Your task to perform on an android device: open app "Spotify: Music and Podcasts" (install if not already installed), go to login, and select forgot password Image 0: 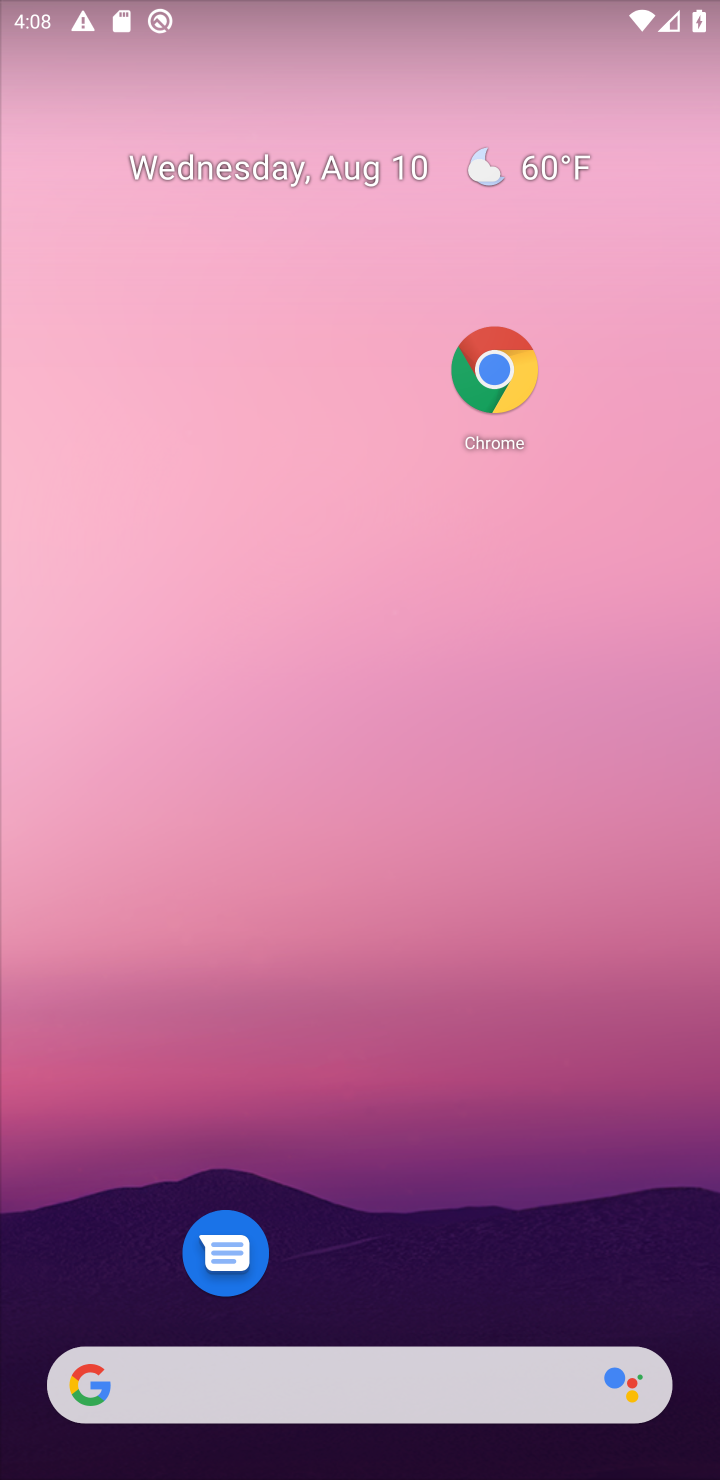
Step 0: click (326, 576)
Your task to perform on an android device: open app "Spotify: Music and Podcasts" (install if not already installed), go to login, and select forgot password Image 1: 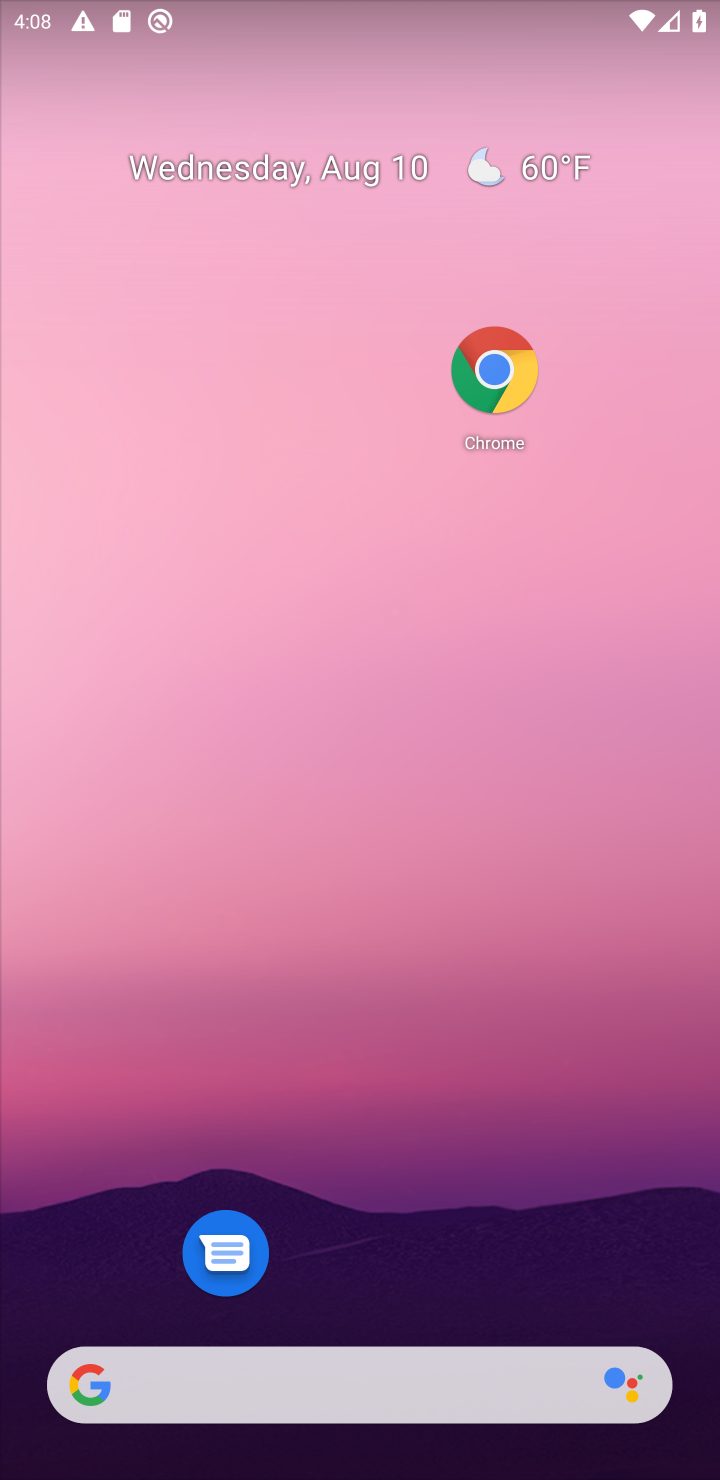
Step 1: drag from (379, 1028) to (431, 436)
Your task to perform on an android device: open app "Spotify: Music and Podcasts" (install if not already installed), go to login, and select forgot password Image 2: 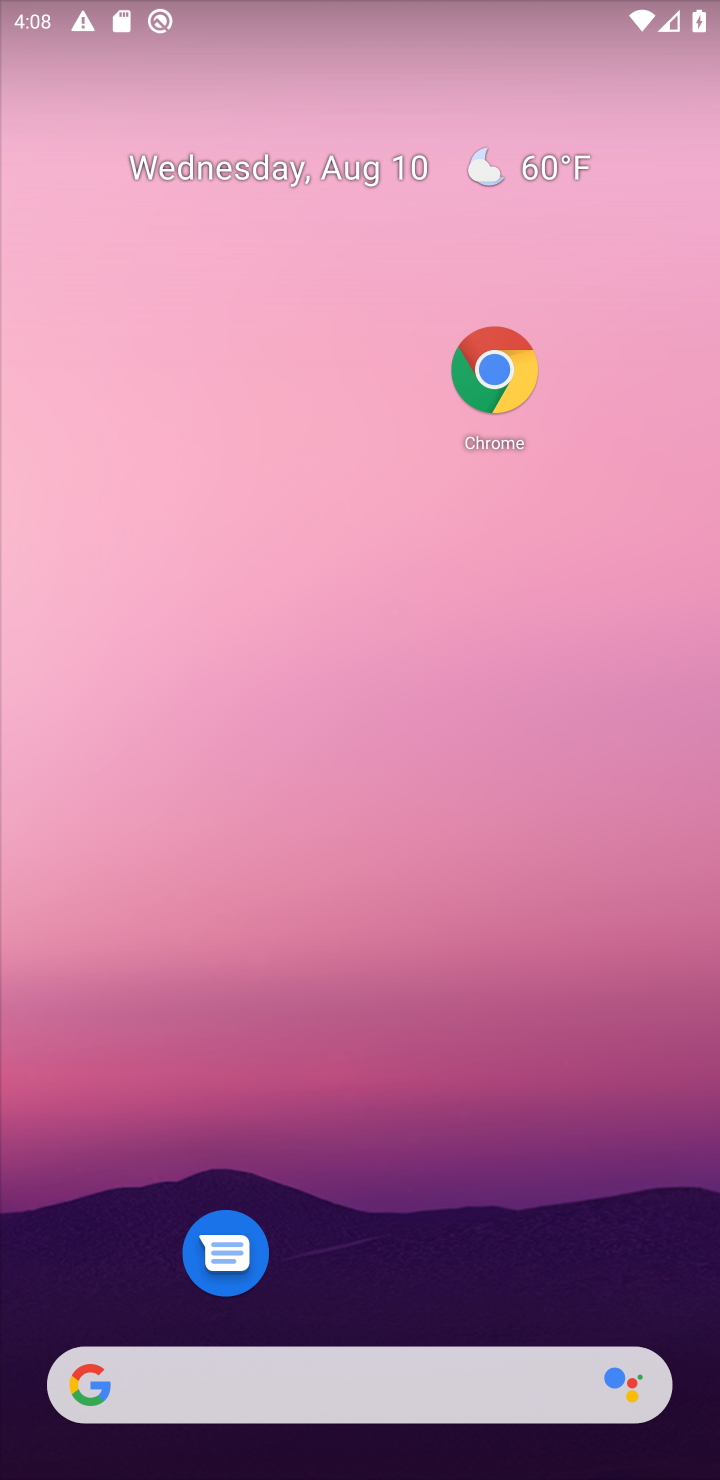
Step 2: drag from (283, 1265) to (266, 1067)
Your task to perform on an android device: open app "Spotify: Music and Podcasts" (install if not already installed), go to login, and select forgot password Image 3: 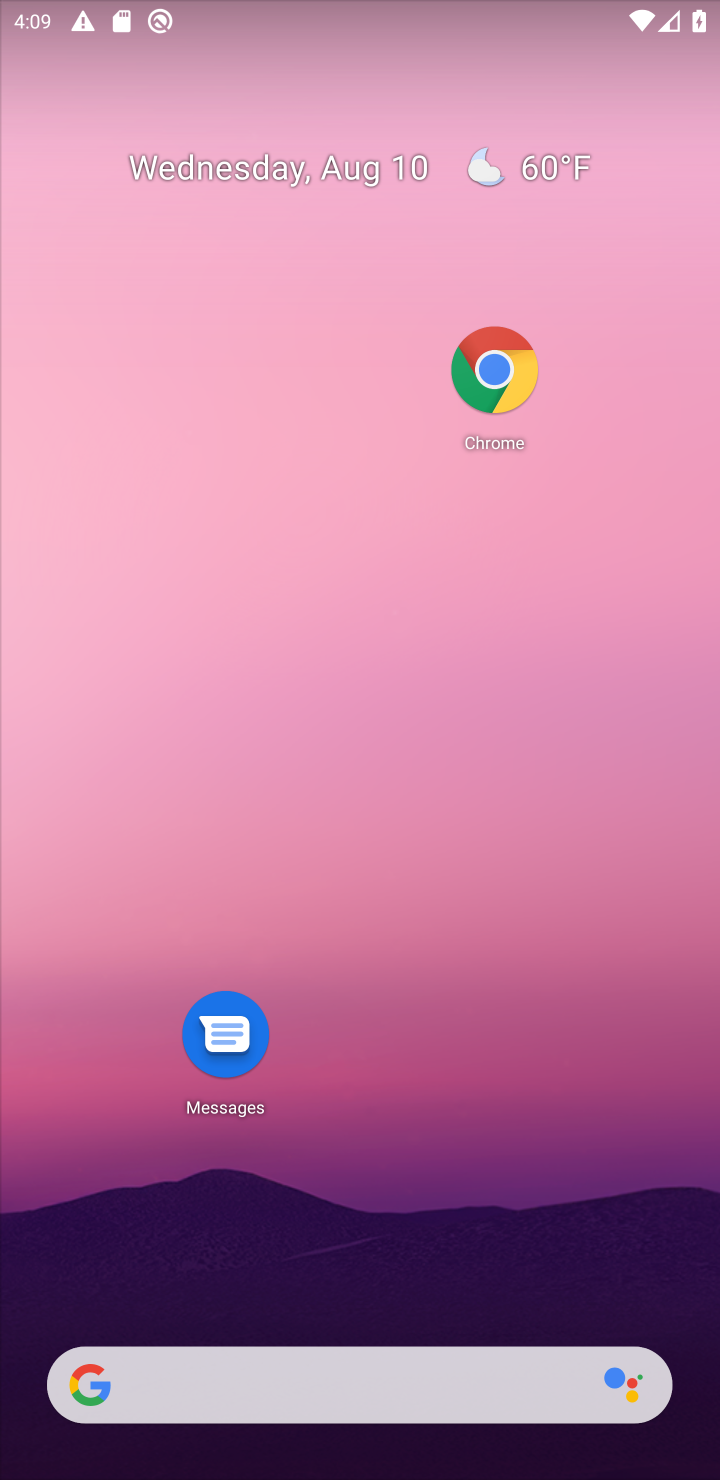
Step 3: drag from (383, 1136) to (377, 376)
Your task to perform on an android device: open app "Spotify: Music and Podcasts" (install if not already installed), go to login, and select forgot password Image 4: 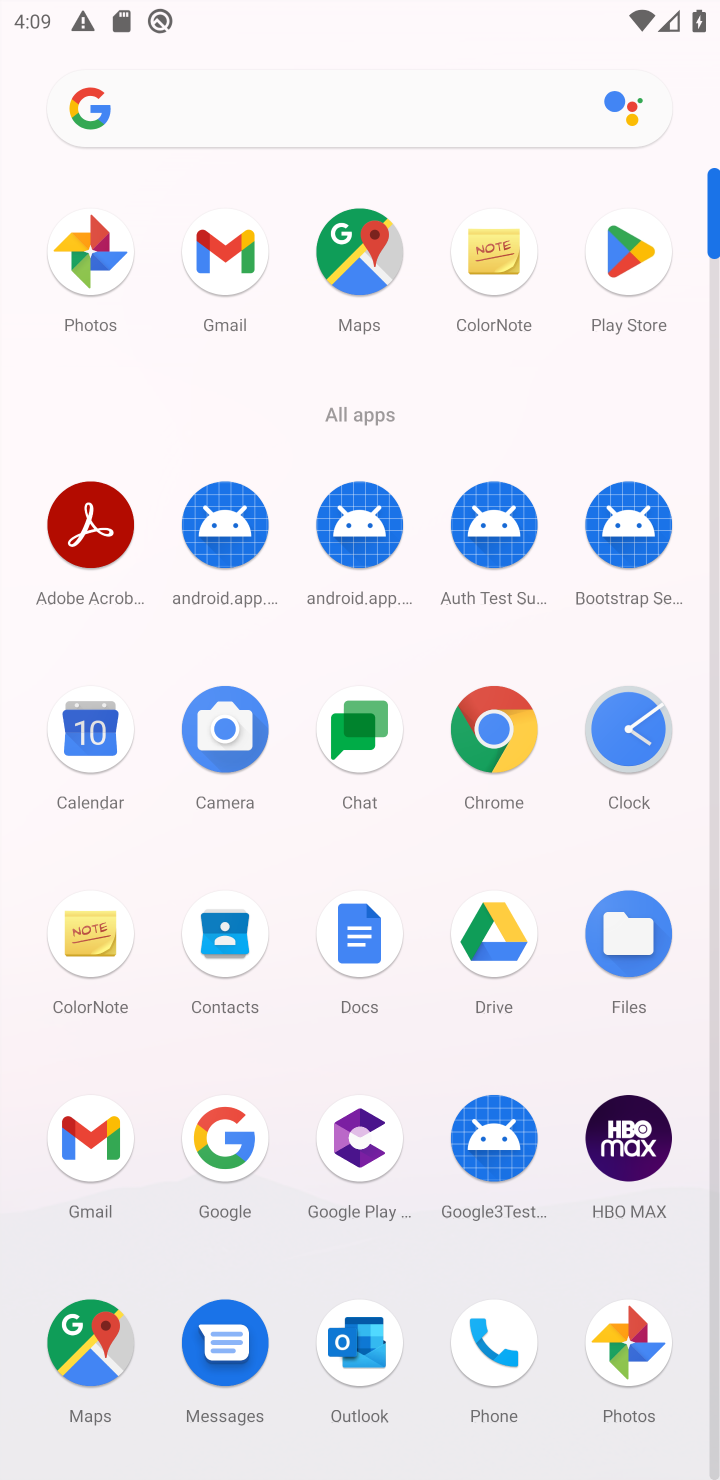
Step 4: click (618, 241)
Your task to perform on an android device: open app "Spotify: Music and Podcasts" (install if not already installed), go to login, and select forgot password Image 5: 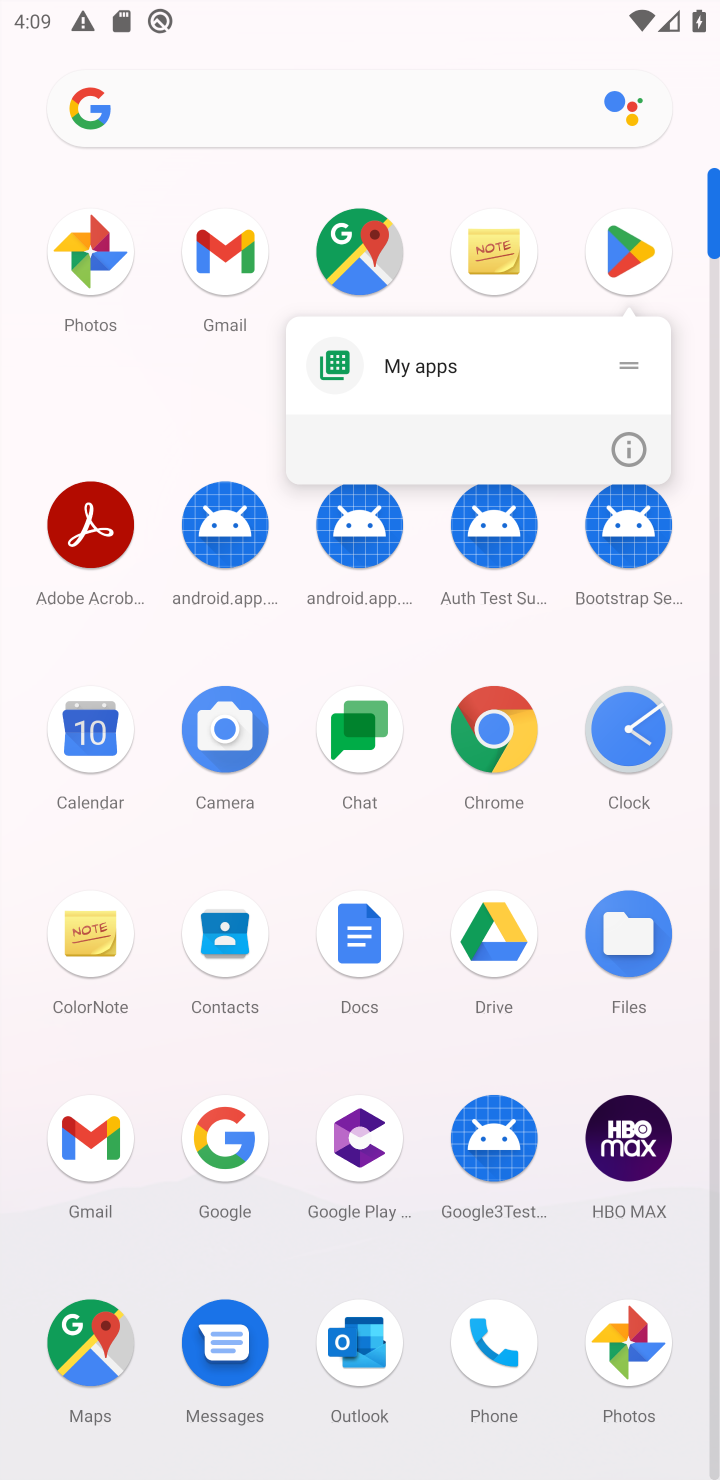
Step 5: click (635, 235)
Your task to perform on an android device: open app "Spotify: Music and Podcasts" (install if not already installed), go to login, and select forgot password Image 6: 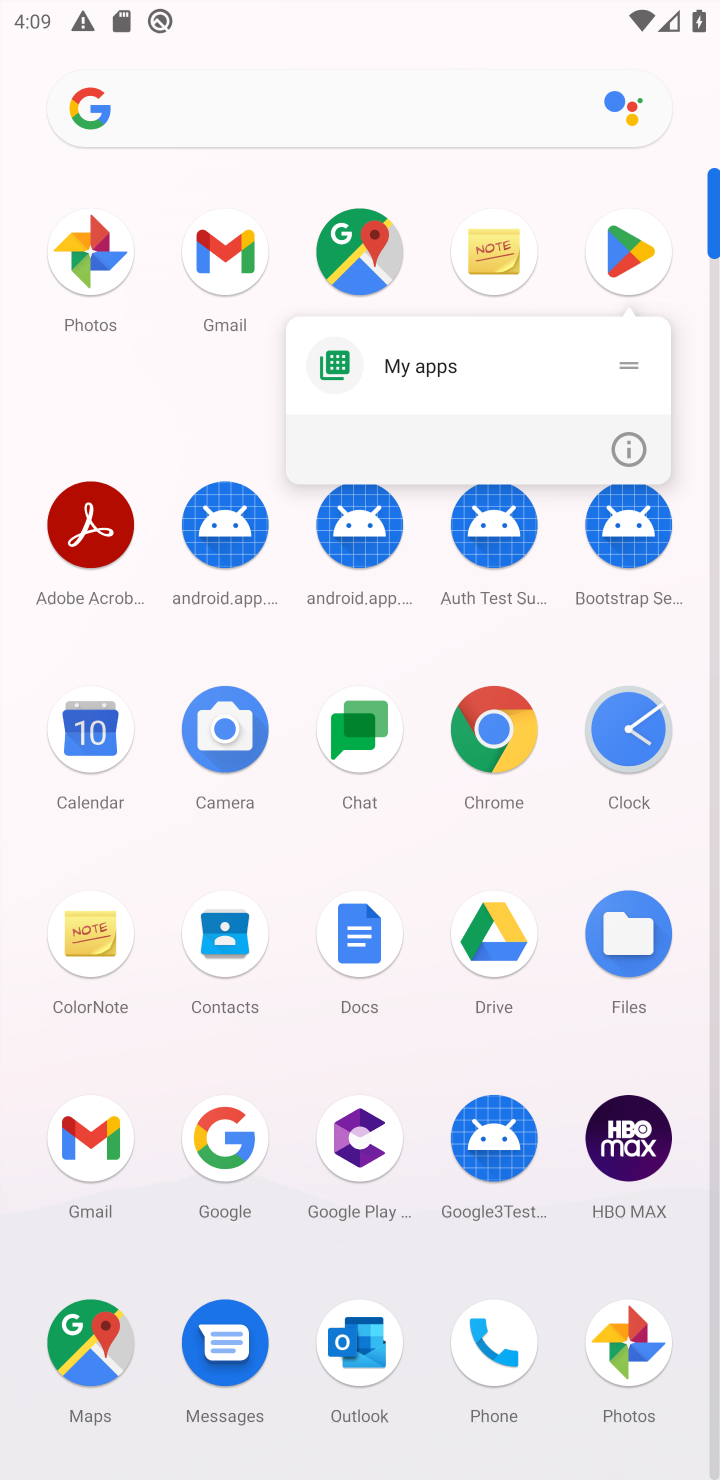
Step 6: click (631, 270)
Your task to perform on an android device: open app "Spotify: Music and Podcasts" (install if not already installed), go to login, and select forgot password Image 7: 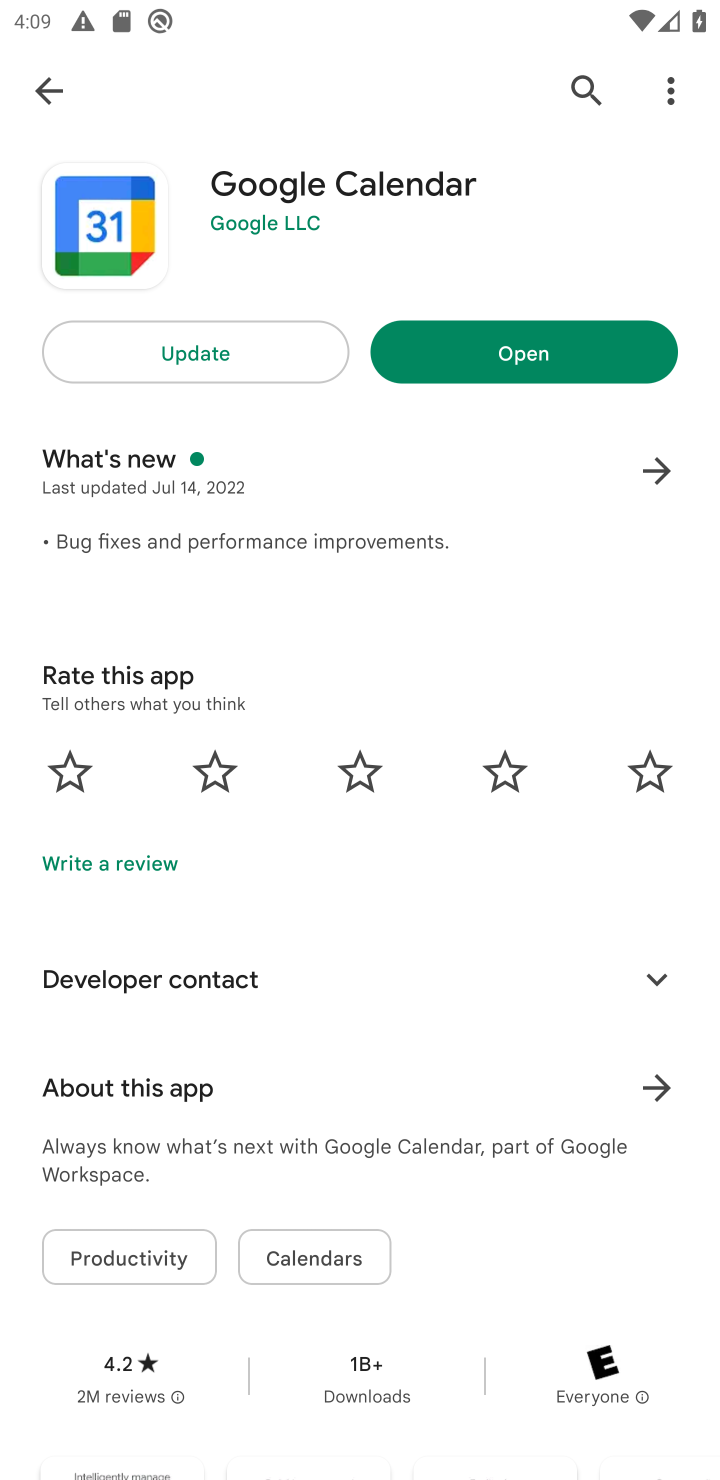
Step 7: click (38, 88)
Your task to perform on an android device: open app "Spotify: Music and Podcasts" (install if not already installed), go to login, and select forgot password Image 8: 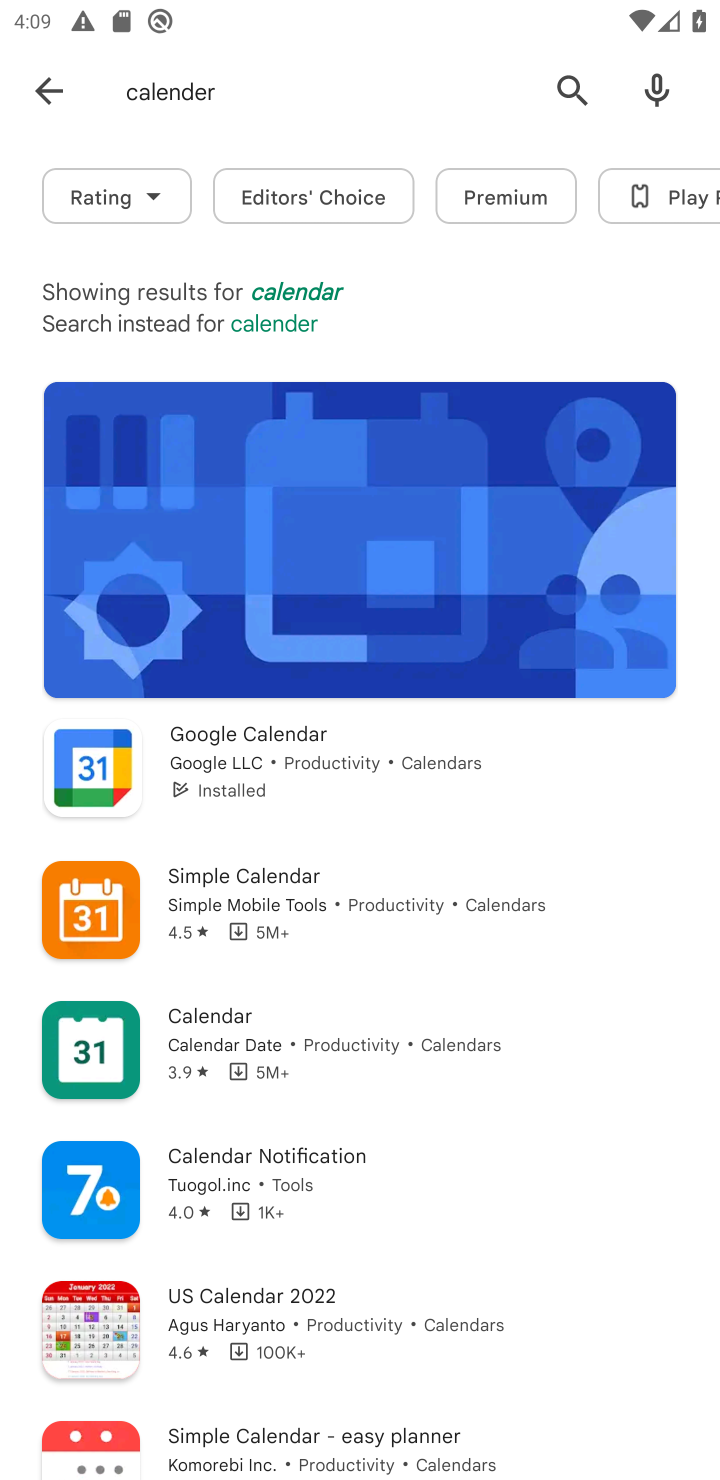
Step 8: click (37, 68)
Your task to perform on an android device: open app "Spotify: Music and Podcasts" (install if not already installed), go to login, and select forgot password Image 9: 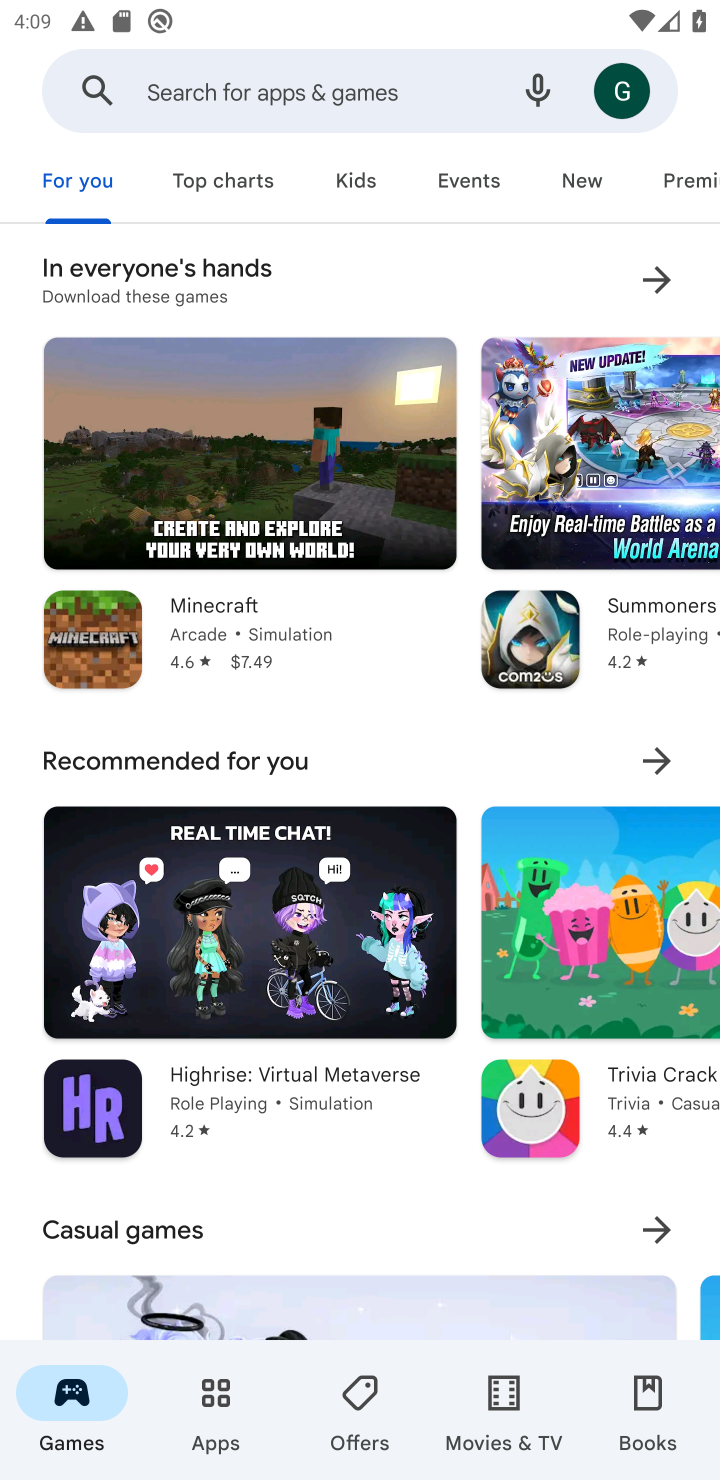
Step 9: click (356, 74)
Your task to perform on an android device: open app "Spotify: Music and Podcasts" (install if not already installed), go to login, and select forgot password Image 10: 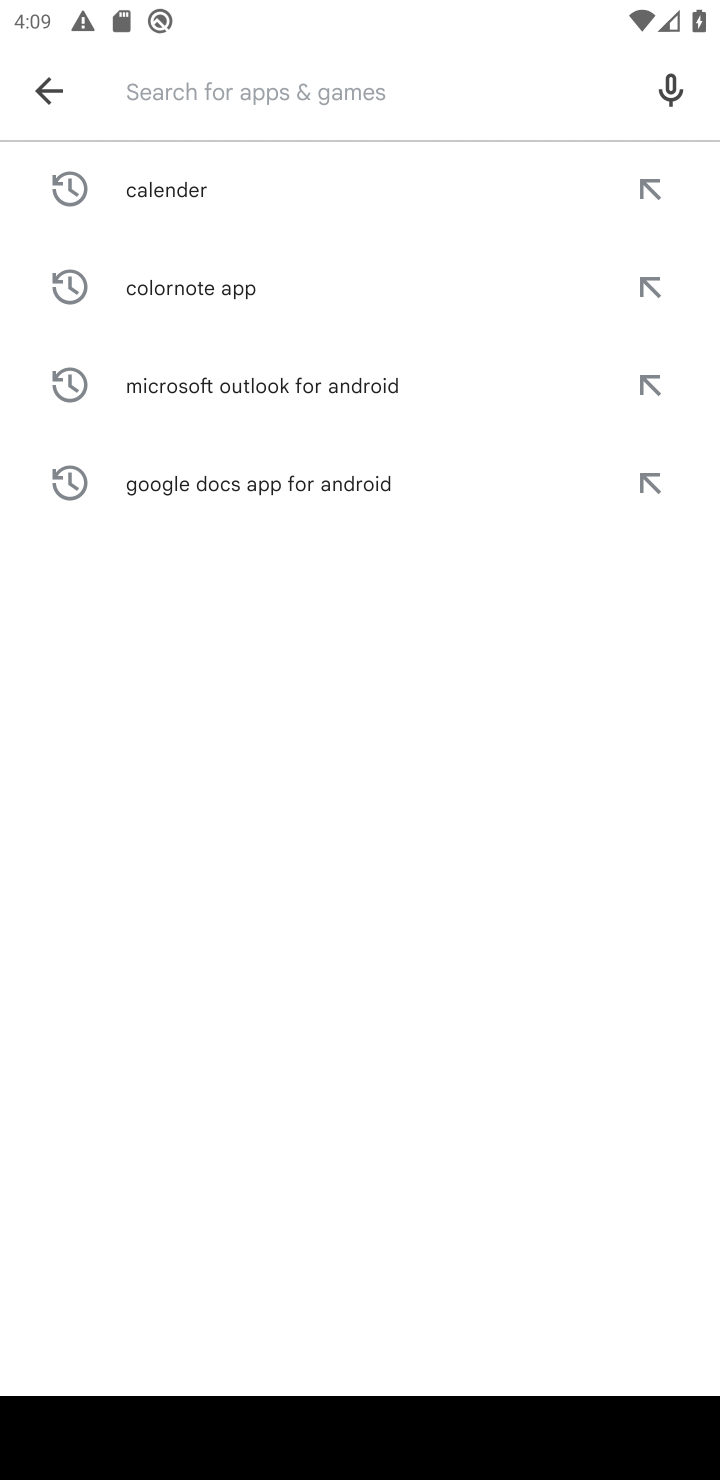
Step 10: type "spotify "
Your task to perform on an android device: open app "Spotify: Music and Podcasts" (install if not already installed), go to login, and select forgot password Image 11: 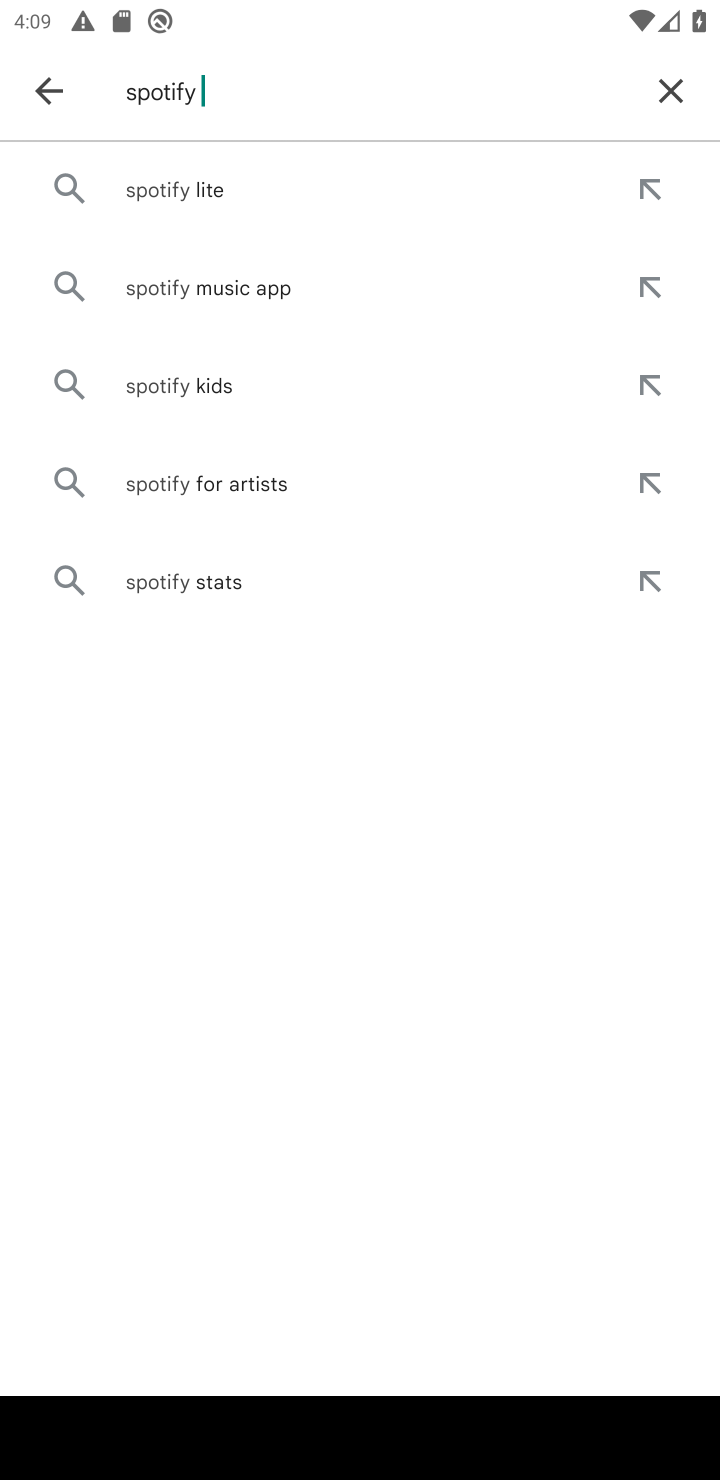
Step 11: click (192, 275)
Your task to perform on an android device: open app "Spotify: Music and Podcasts" (install if not already installed), go to login, and select forgot password Image 12: 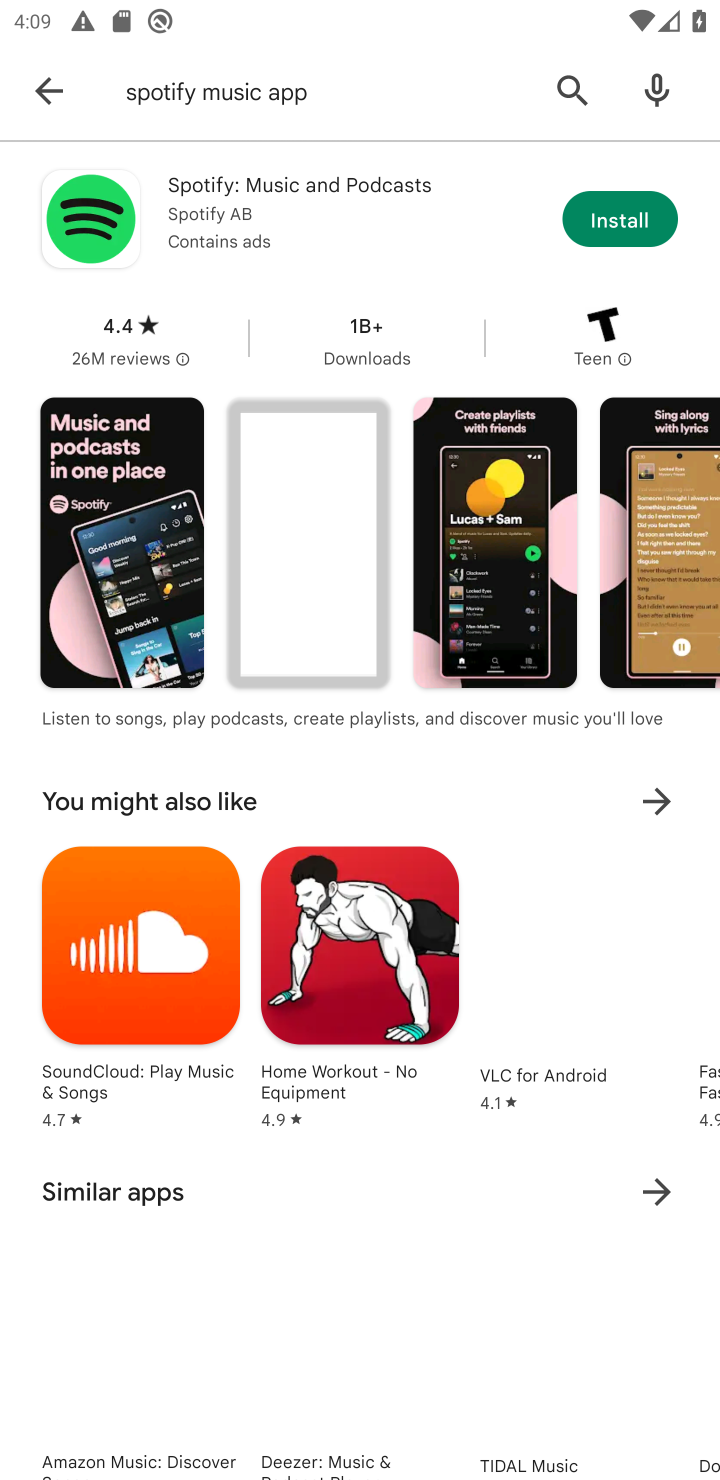
Step 12: click (602, 221)
Your task to perform on an android device: open app "Spotify: Music and Podcasts" (install if not already installed), go to login, and select forgot password Image 13: 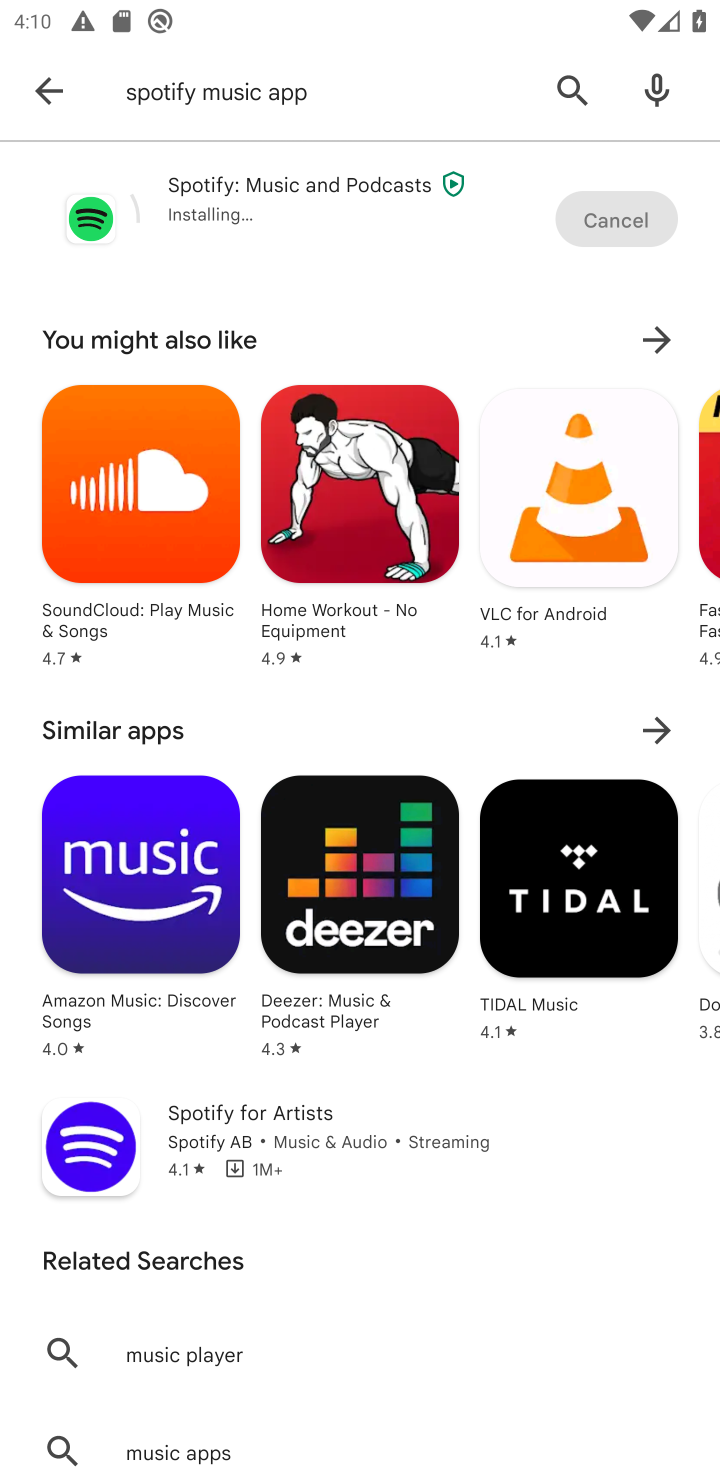
Step 13: task complete